Your task to perform on an android device: Open the map Image 0: 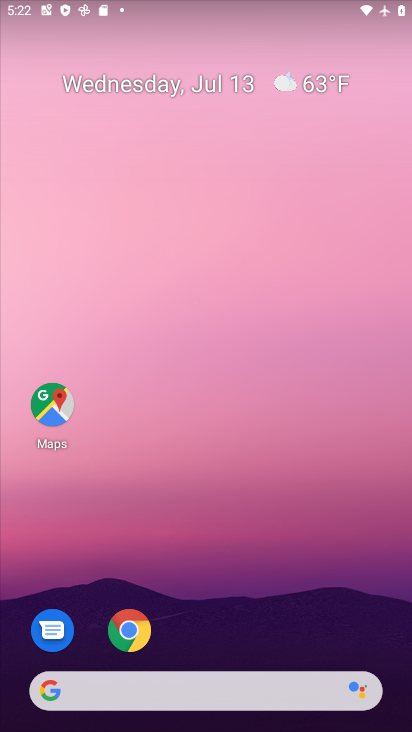
Step 0: press home button
Your task to perform on an android device: Open the map Image 1: 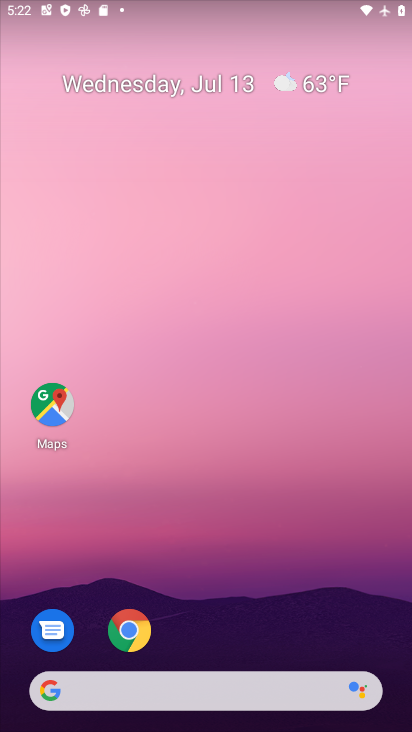
Step 1: drag from (233, 644) to (245, 64)
Your task to perform on an android device: Open the map Image 2: 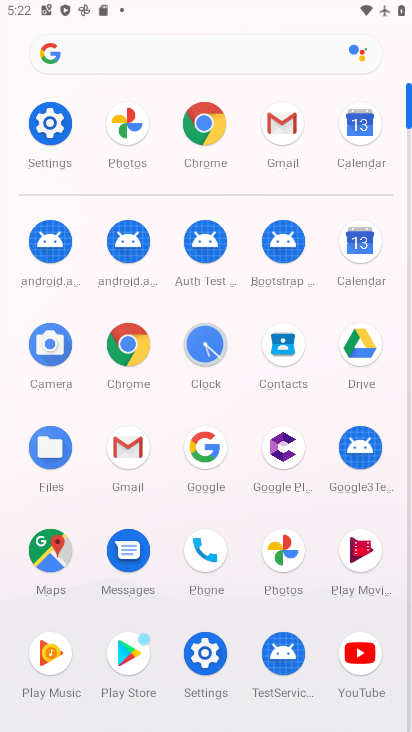
Step 2: click (46, 557)
Your task to perform on an android device: Open the map Image 3: 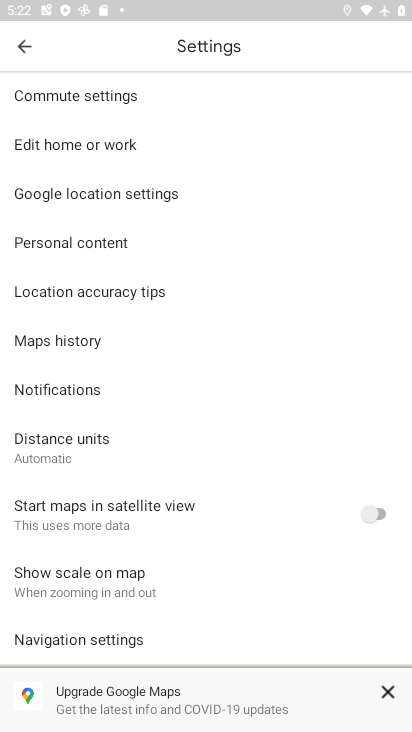
Step 3: task complete